Your task to perform on an android device: Turn off the flashlight Image 0: 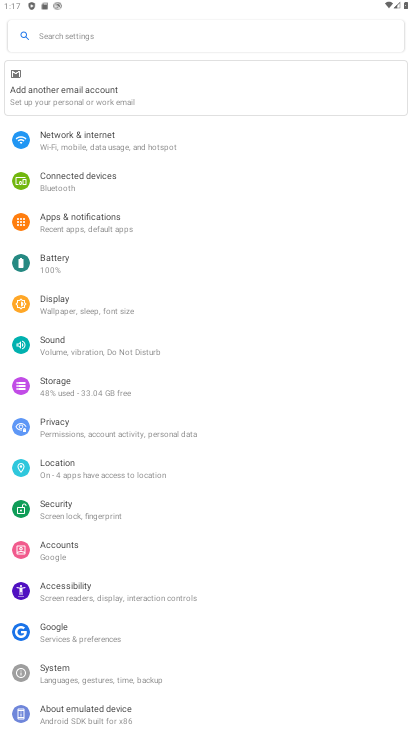
Step 0: drag from (301, 462) to (383, 58)
Your task to perform on an android device: Turn off the flashlight Image 1: 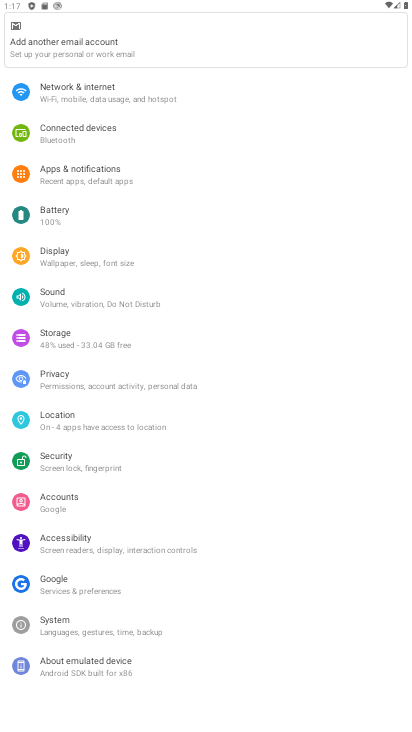
Step 1: task complete